Your task to perform on an android device: Open my contact list Image 0: 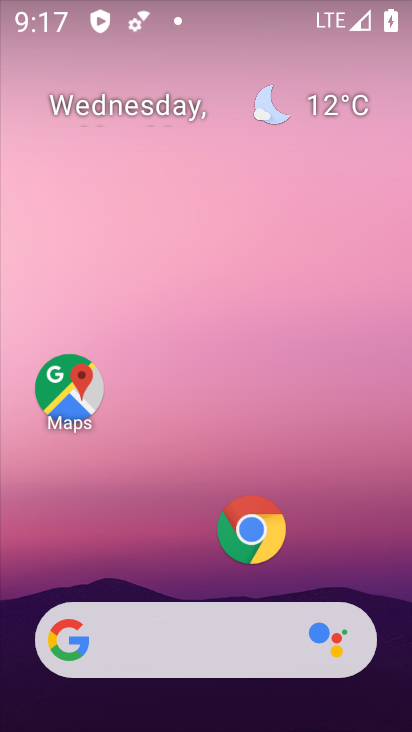
Step 0: drag from (149, 594) to (222, 170)
Your task to perform on an android device: Open my contact list Image 1: 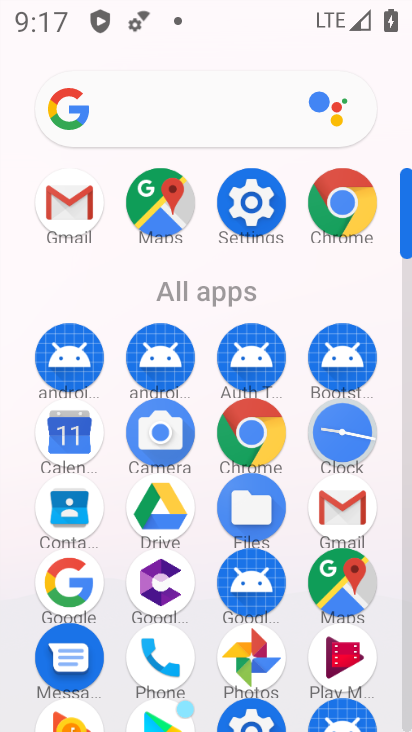
Step 1: drag from (206, 635) to (194, 223)
Your task to perform on an android device: Open my contact list Image 2: 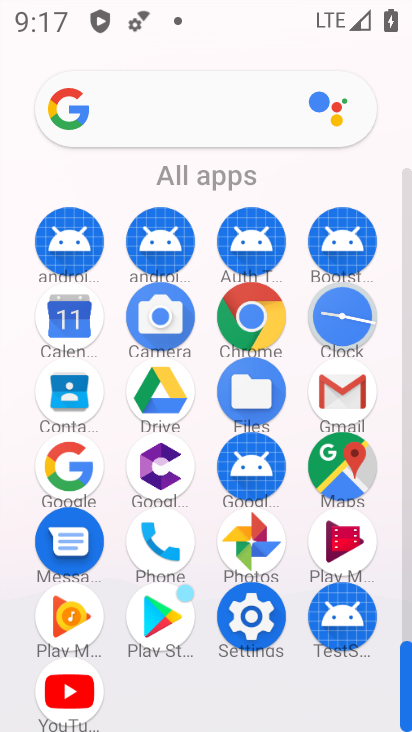
Step 2: click (61, 385)
Your task to perform on an android device: Open my contact list Image 3: 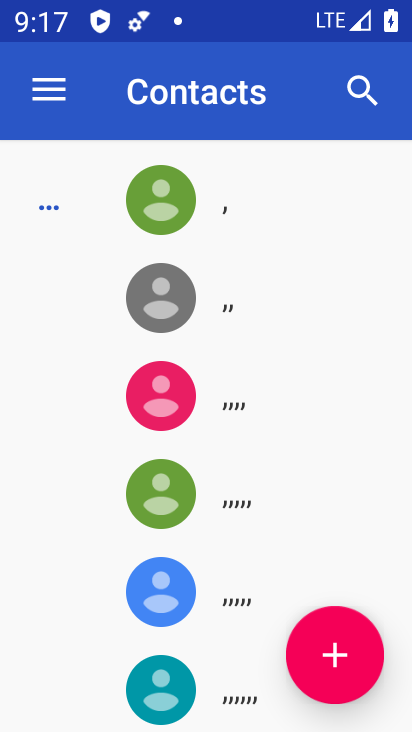
Step 3: task complete